Your task to perform on an android device: Show me recent news Image 0: 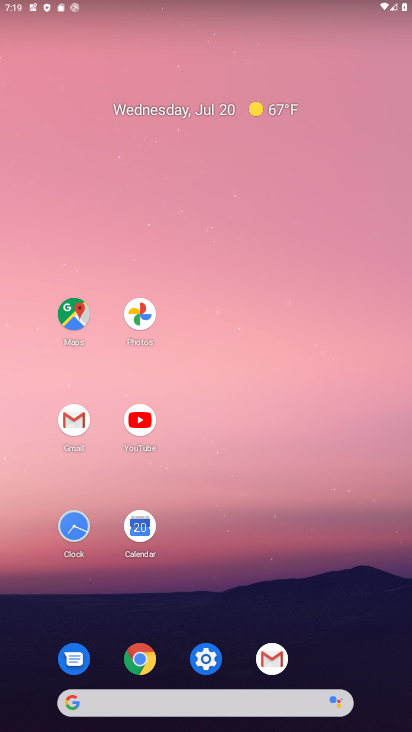
Step 0: drag from (10, 209) to (373, 211)
Your task to perform on an android device: Show me recent news Image 1: 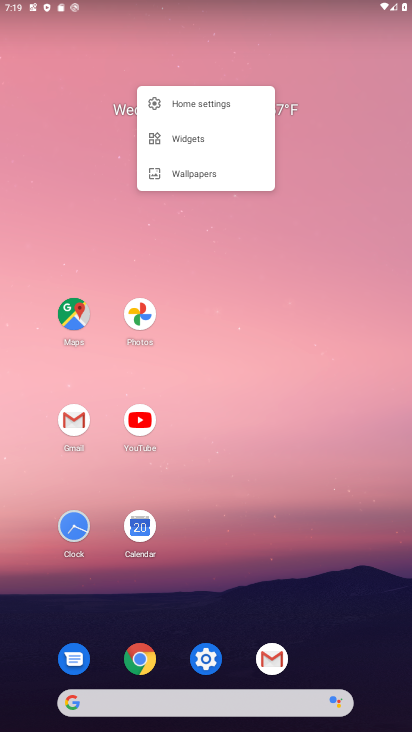
Step 1: click (343, 234)
Your task to perform on an android device: Show me recent news Image 2: 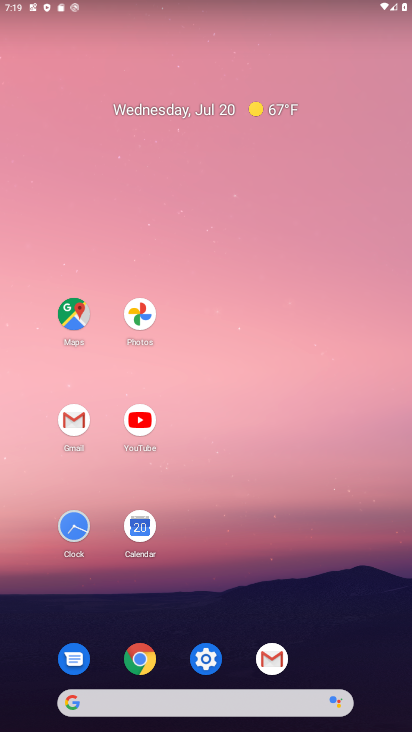
Step 2: drag from (29, 205) to (355, 228)
Your task to perform on an android device: Show me recent news Image 3: 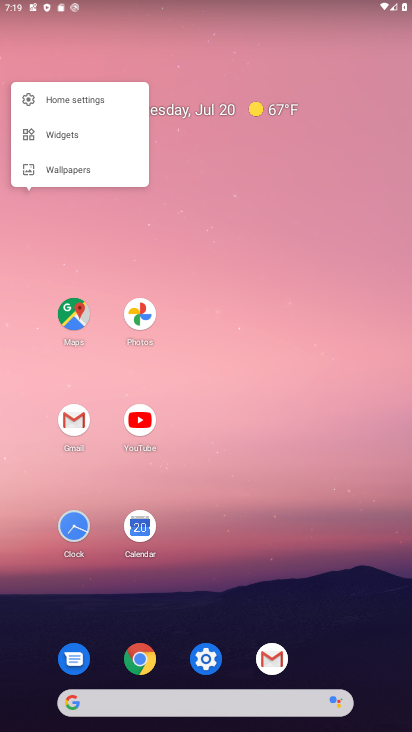
Step 3: click (348, 231)
Your task to perform on an android device: Show me recent news Image 4: 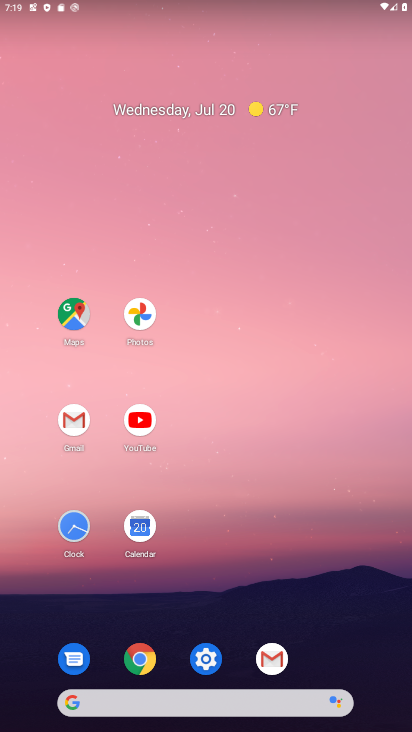
Step 4: task complete